Your task to perform on an android device: Open Yahoo.com Image 0: 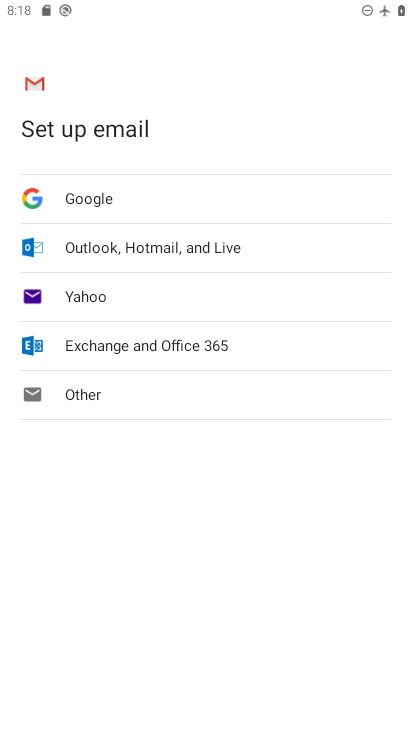
Step 0: press home button
Your task to perform on an android device: Open Yahoo.com Image 1: 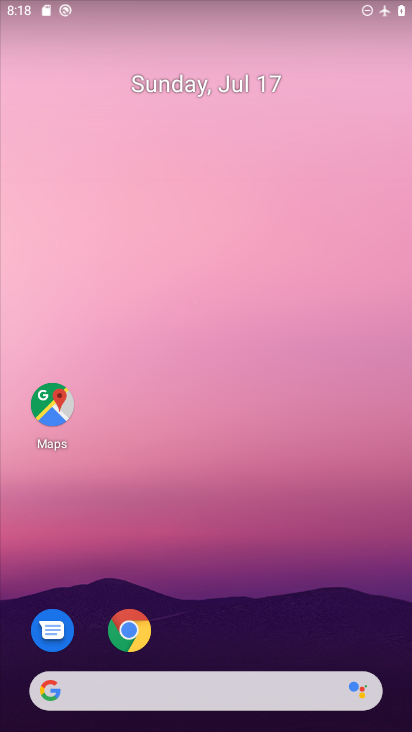
Step 1: drag from (172, 677) to (267, 61)
Your task to perform on an android device: Open Yahoo.com Image 2: 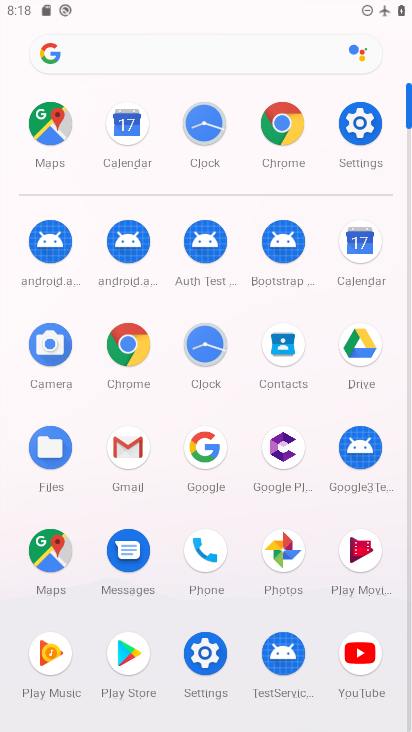
Step 2: click (279, 125)
Your task to perform on an android device: Open Yahoo.com Image 3: 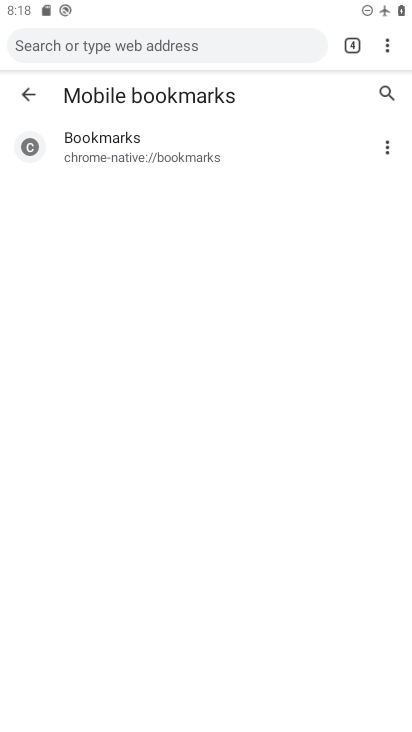
Step 3: click (391, 33)
Your task to perform on an android device: Open Yahoo.com Image 4: 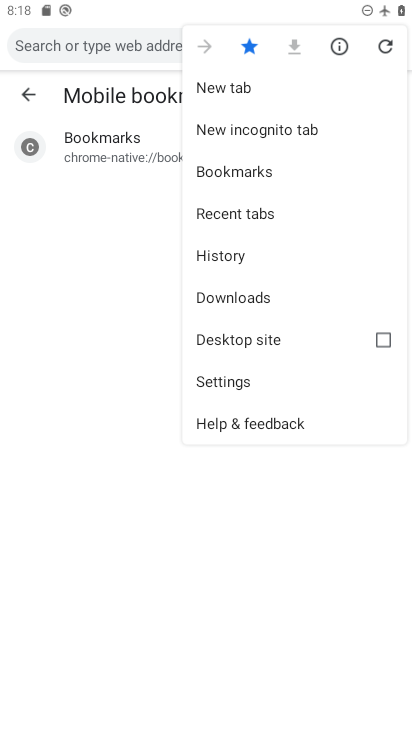
Step 4: click (248, 84)
Your task to perform on an android device: Open Yahoo.com Image 5: 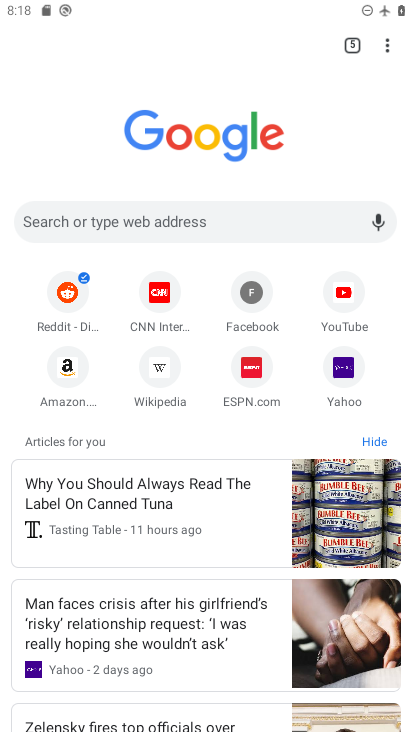
Step 5: click (341, 362)
Your task to perform on an android device: Open Yahoo.com Image 6: 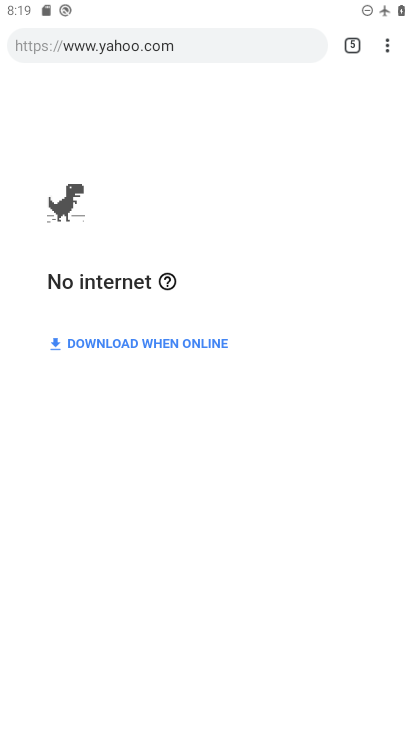
Step 6: task complete